Your task to perform on an android device: Open the stopwatch Image 0: 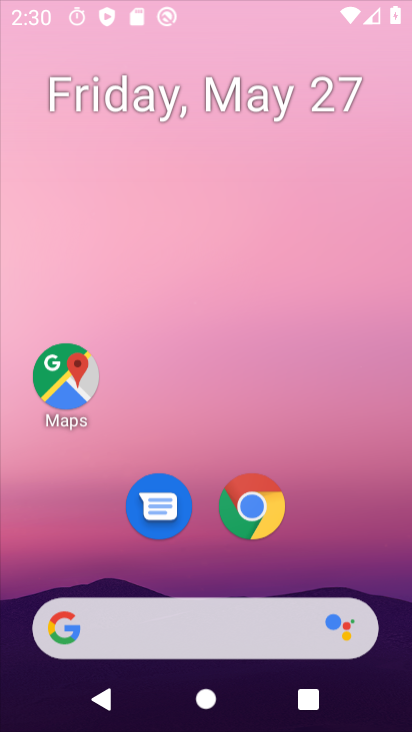
Step 0: click (50, 374)
Your task to perform on an android device: Open the stopwatch Image 1: 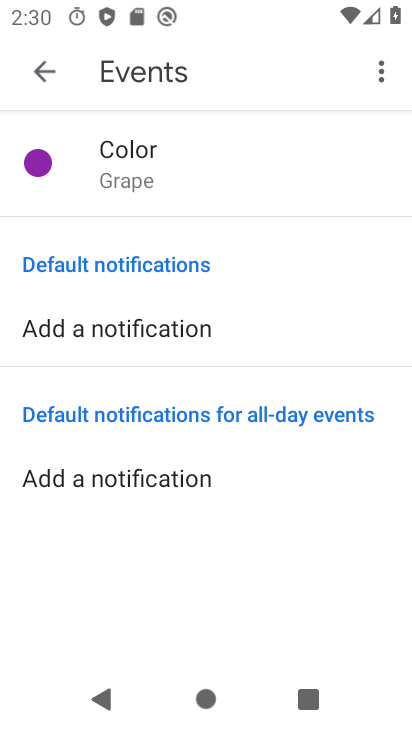
Step 1: press home button
Your task to perform on an android device: Open the stopwatch Image 2: 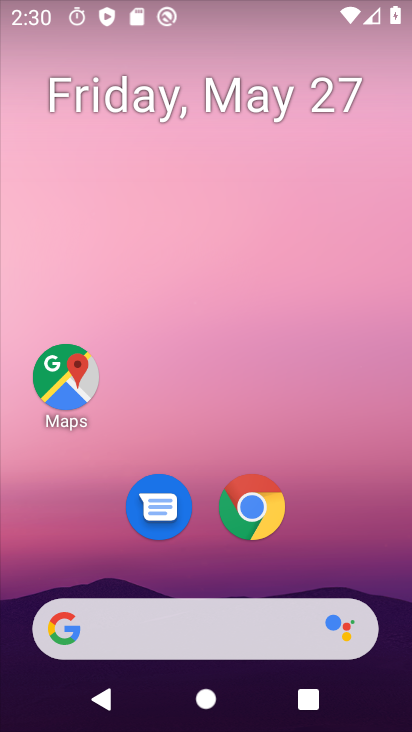
Step 2: drag from (208, 554) to (198, 215)
Your task to perform on an android device: Open the stopwatch Image 3: 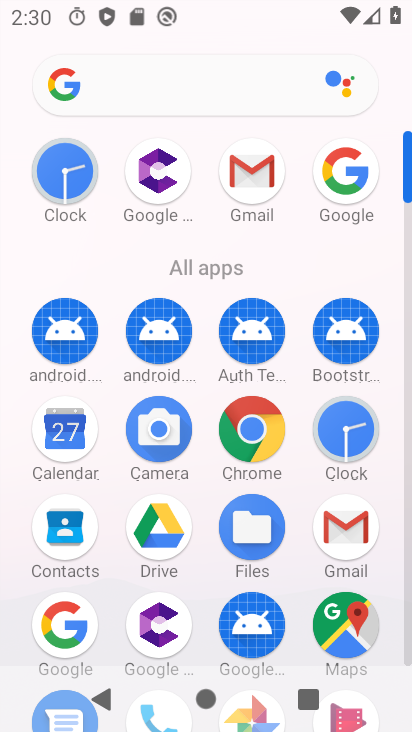
Step 3: click (65, 166)
Your task to perform on an android device: Open the stopwatch Image 4: 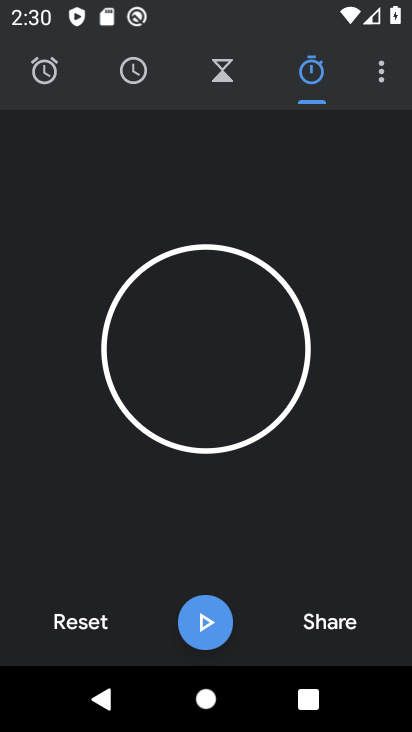
Step 4: task complete